Your task to perform on an android device: Turn on the flashlight Image 0: 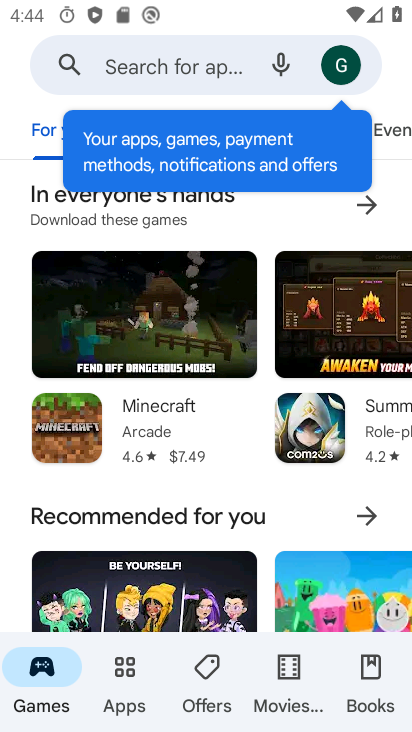
Step 0: press home button
Your task to perform on an android device: Turn on the flashlight Image 1: 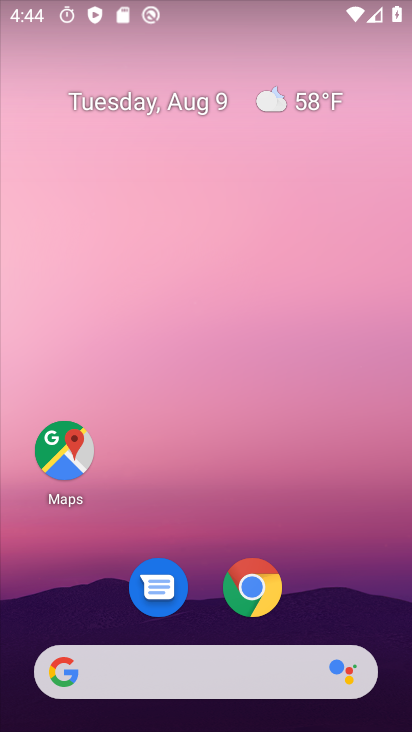
Step 1: task complete